Your task to perform on an android device: turn vacation reply on in the gmail app Image 0: 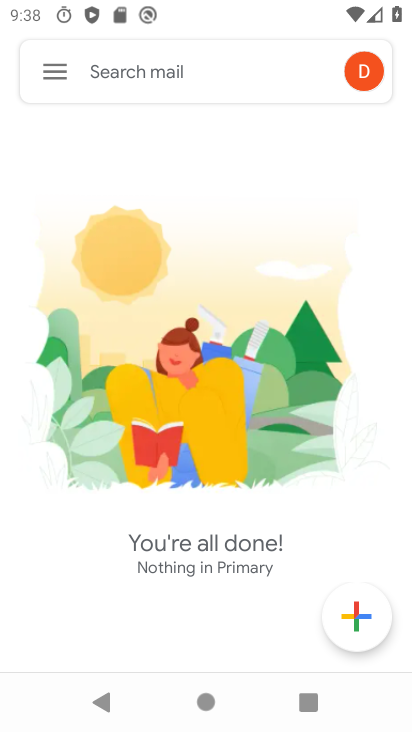
Step 0: click (58, 70)
Your task to perform on an android device: turn vacation reply on in the gmail app Image 1: 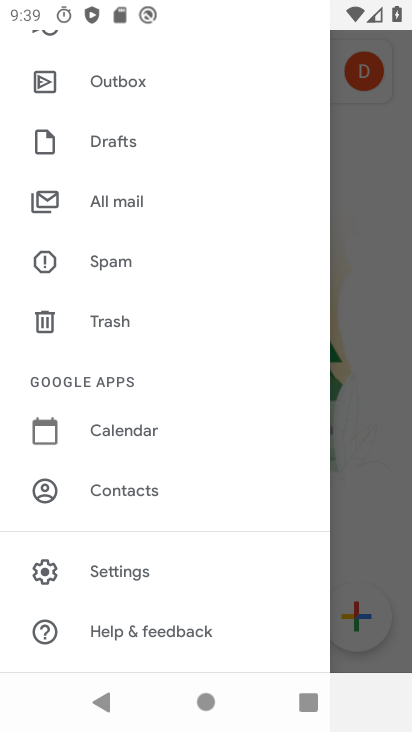
Step 1: click (116, 573)
Your task to perform on an android device: turn vacation reply on in the gmail app Image 2: 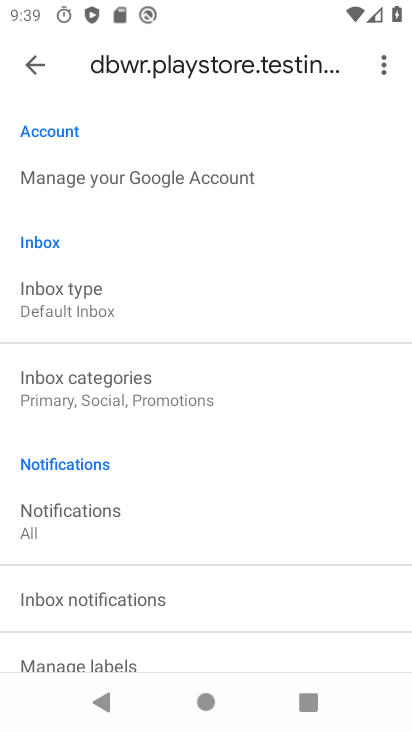
Step 2: drag from (154, 515) to (149, 261)
Your task to perform on an android device: turn vacation reply on in the gmail app Image 3: 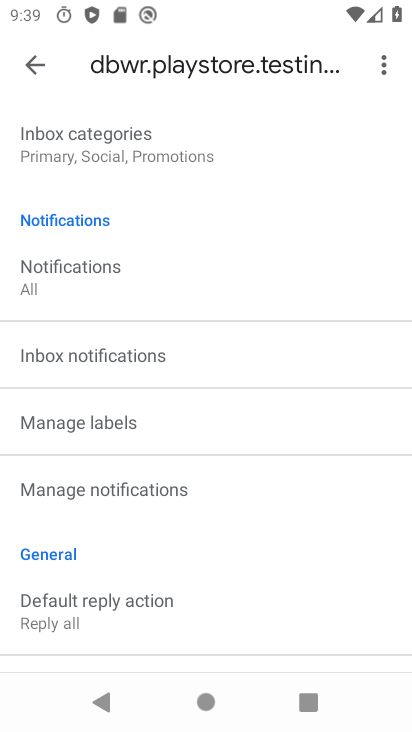
Step 3: drag from (147, 280) to (195, 132)
Your task to perform on an android device: turn vacation reply on in the gmail app Image 4: 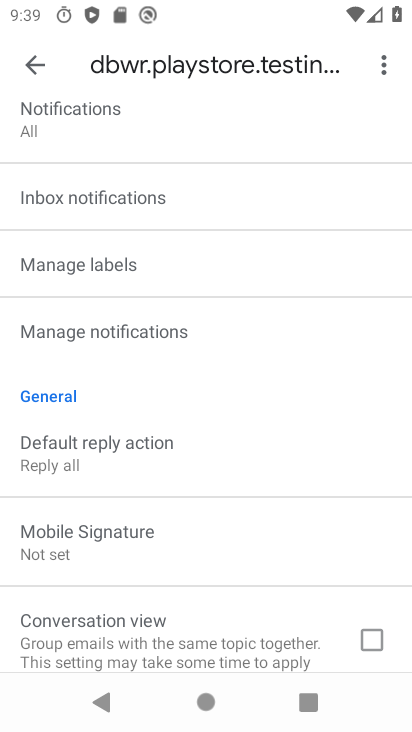
Step 4: drag from (130, 520) to (118, 207)
Your task to perform on an android device: turn vacation reply on in the gmail app Image 5: 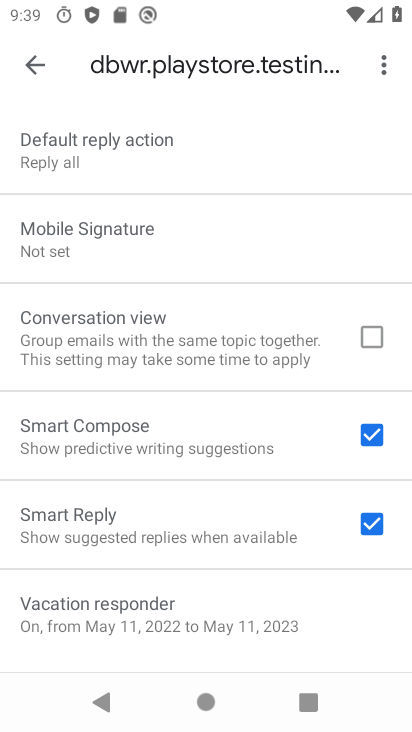
Step 5: drag from (139, 574) to (145, 448)
Your task to perform on an android device: turn vacation reply on in the gmail app Image 6: 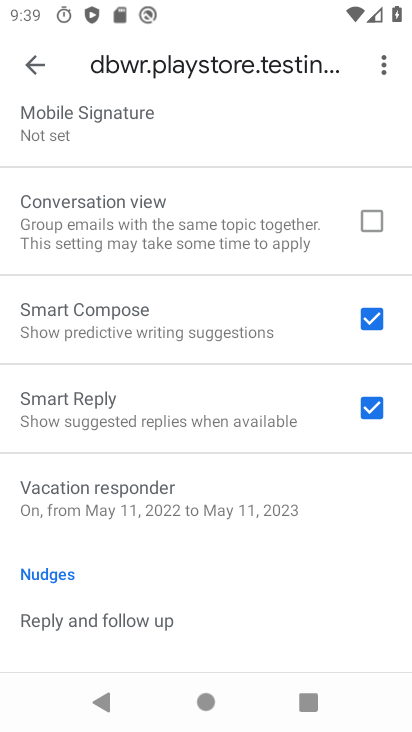
Step 6: click (160, 510)
Your task to perform on an android device: turn vacation reply on in the gmail app Image 7: 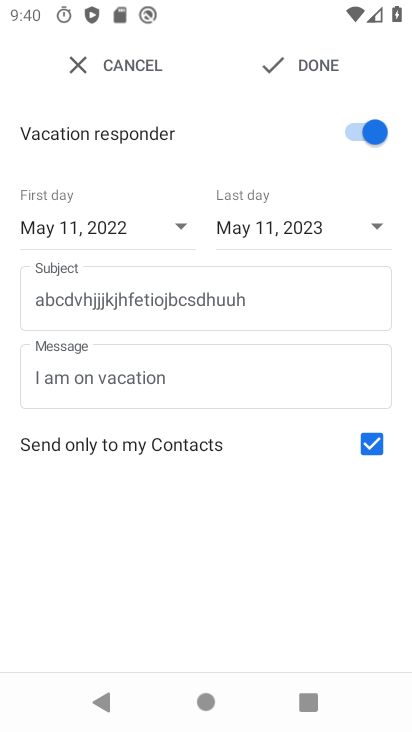
Step 7: task complete